Your task to perform on an android device: Is it going to rain today? Image 0: 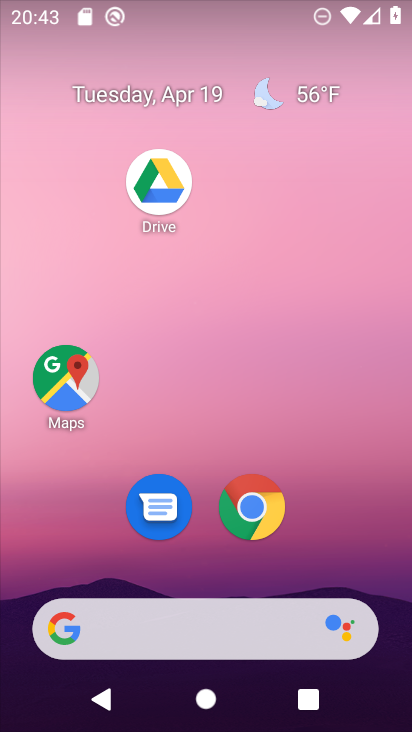
Step 0: drag from (351, 539) to (348, 313)
Your task to perform on an android device: Is it going to rain today? Image 1: 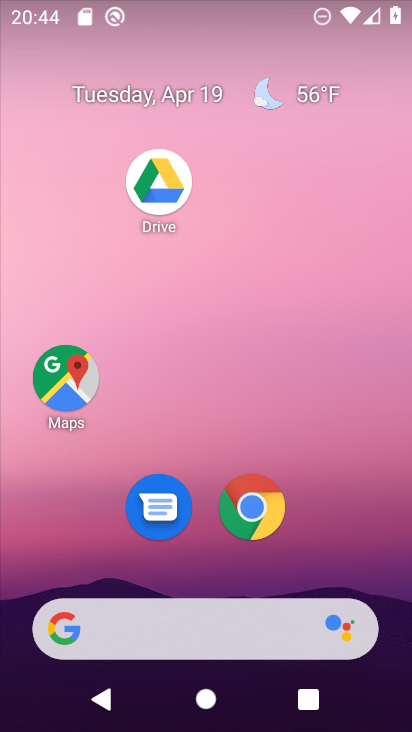
Step 1: click (302, 87)
Your task to perform on an android device: Is it going to rain today? Image 2: 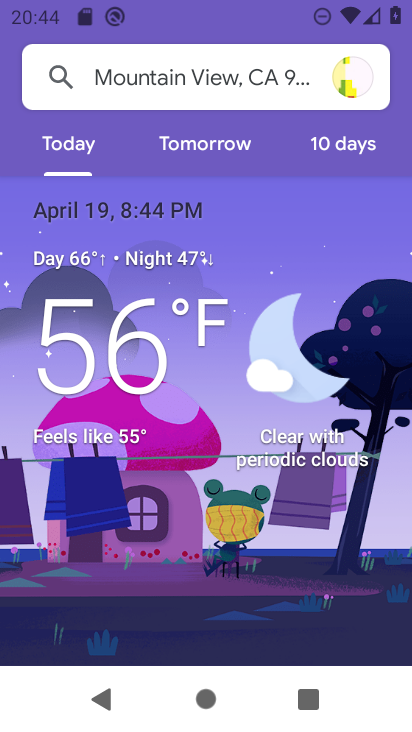
Step 2: task complete